Your task to perform on an android device: show emergency info Image 0: 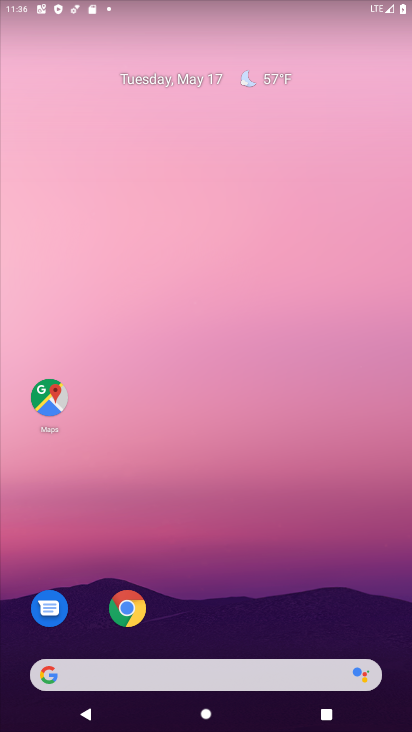
Step 0: drag from (253, 582) to (208, 22)
Your task to perform on an android device: show emergency info Image 1: 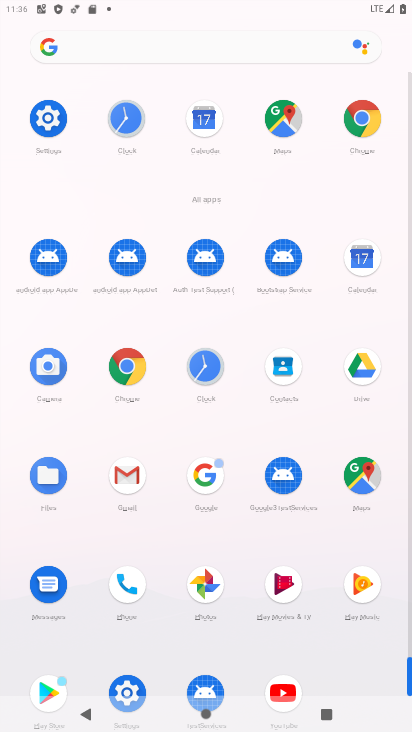
Step 1: click (54, 108)
Your task to perform on an android device: show emergency info Image 2: 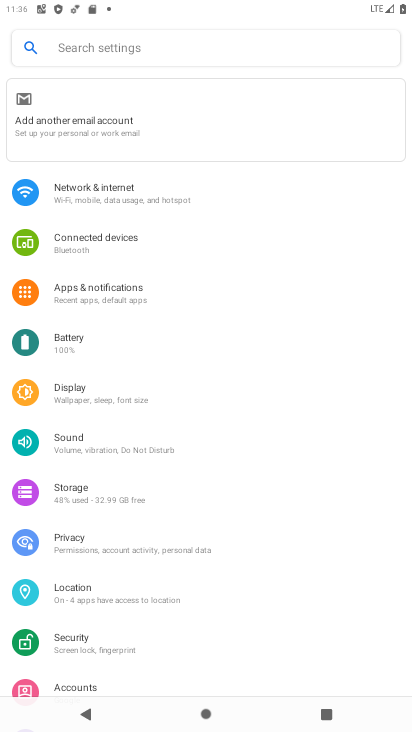
Step 2: drag from (286, 576) to (225, 302)
Your task to perform on an android device: show emergency info Image 3: 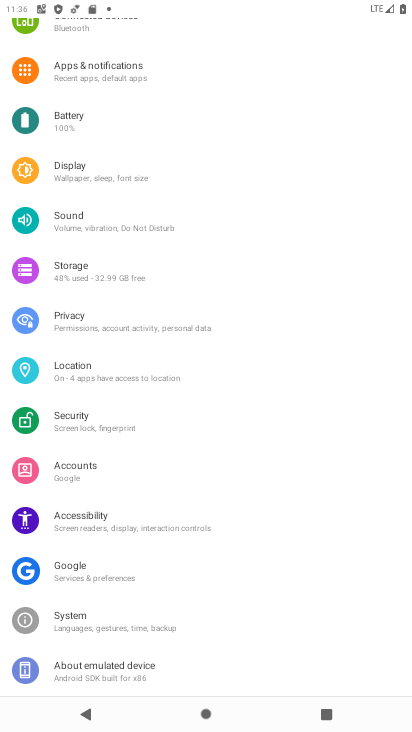
Step 3: click (98, 661)
Your task to perform on an android device: show emergency info Image 4: 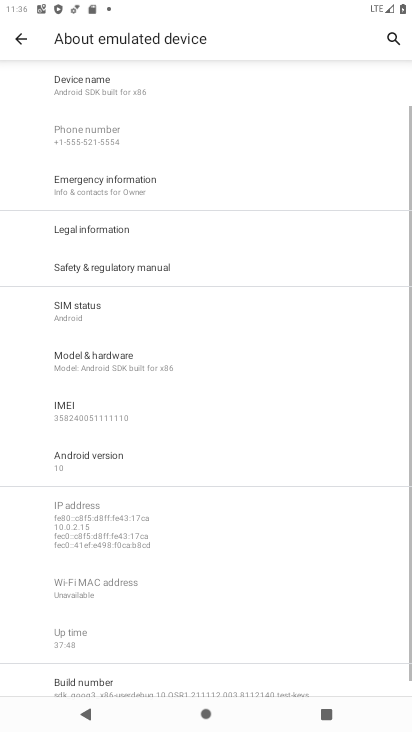
Step 4: click (105, 180)
Your task to perform on an android device: show emergency info Image 5: 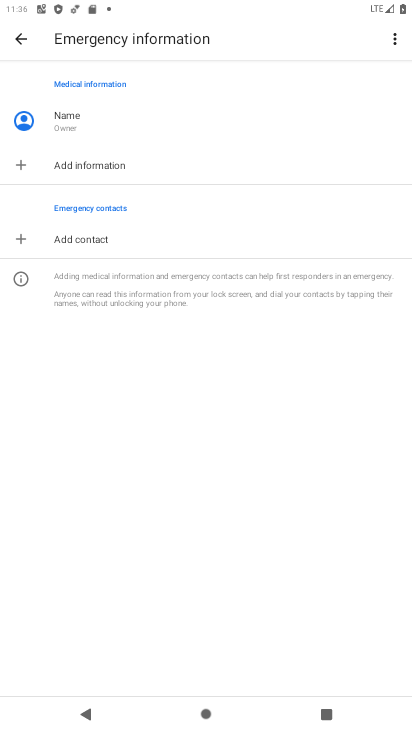
Step 5: task complete